Your task to perform on an android device: turn pop-ups on in chrome Image 0: 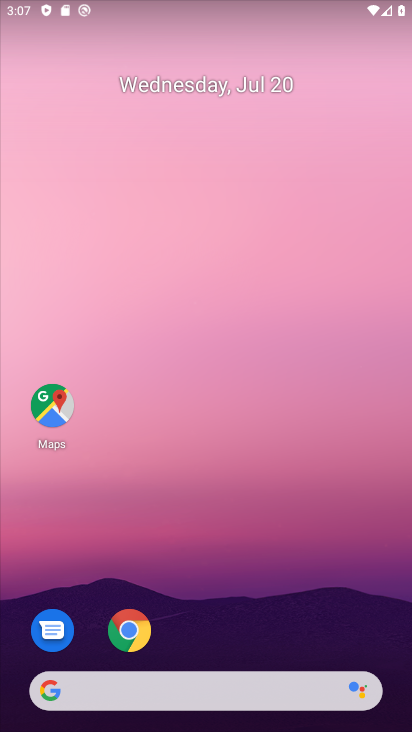
Step 0: press home button
Your task to perform on an android device: turn pop-ups on in chrome Image 1: 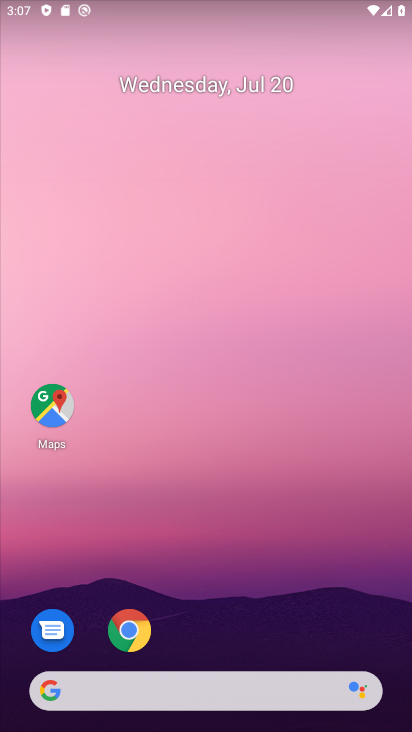
Step 1: drag from (262, 638) to (259, 23)
Your task to perform on an android device: turn pop-ups on in chrome Image 2: 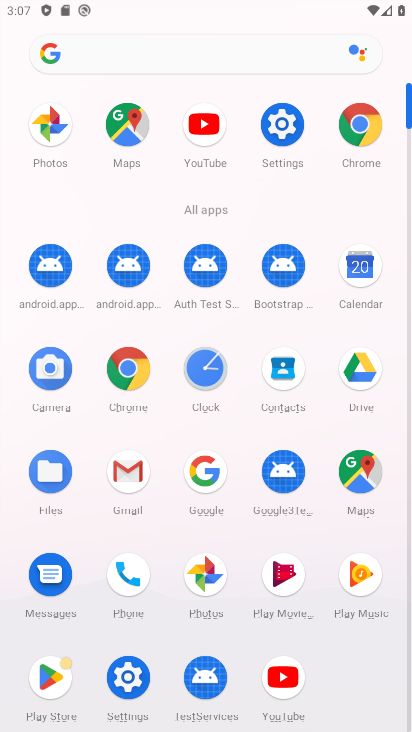
Step 2: click (356, 132)
Your task to perform on an android device: turn pop-ups on in chrome Image 3: 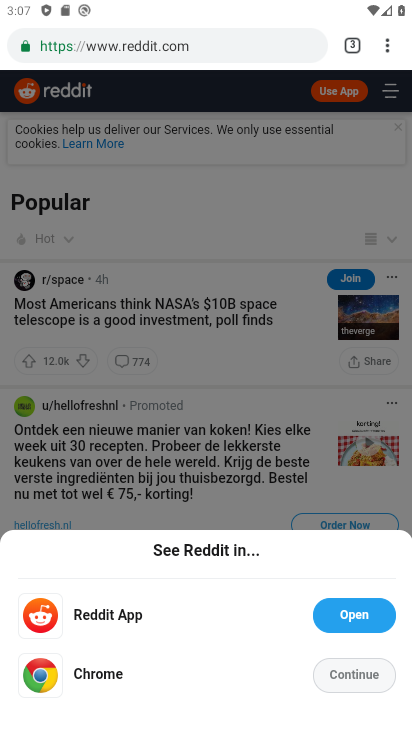
Step 3: drag from (386, 45) to (222, 544)
Your task to perform on an android device: turn pop-ups on in chrome Image 4: 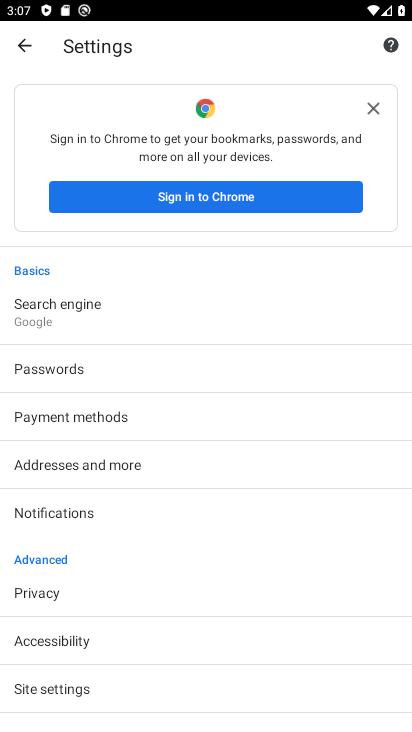
Step 4: click (37, 685)
Your task to perform on an android device: turn pop-ups on in chrome Image 5: 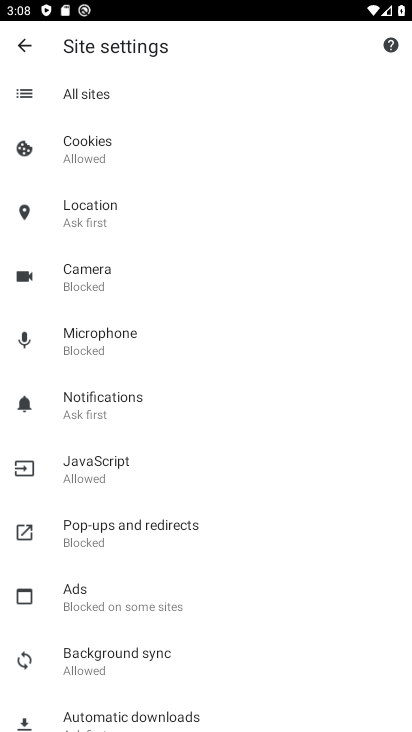
Step 5: click (105, 523)
Your task to perform on an android device: turn pop-ups on in chrome Image 6: 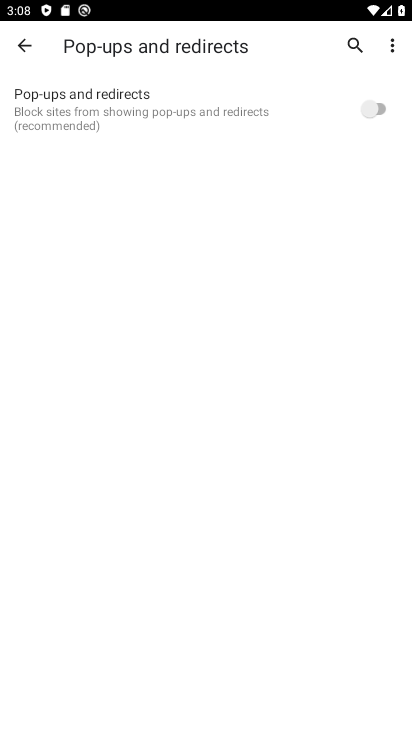
Step 6: click (353, 98)
Your task to perform on an android device: turn pop-ups on in chrome Image 7: 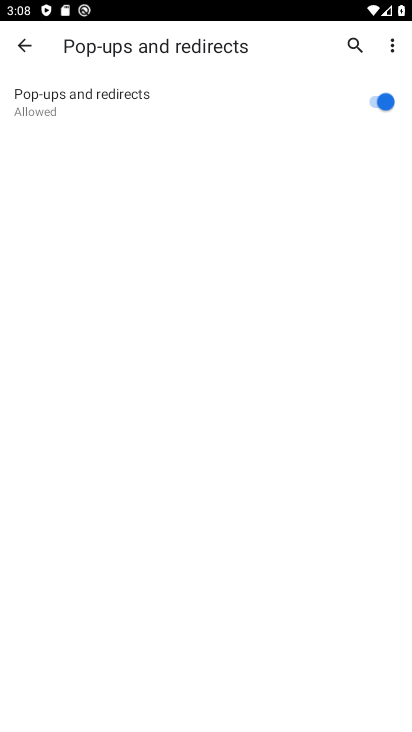
Step 7: task complete